Your task to perform on an android device: toggle javascript in the chrome app Image 0: 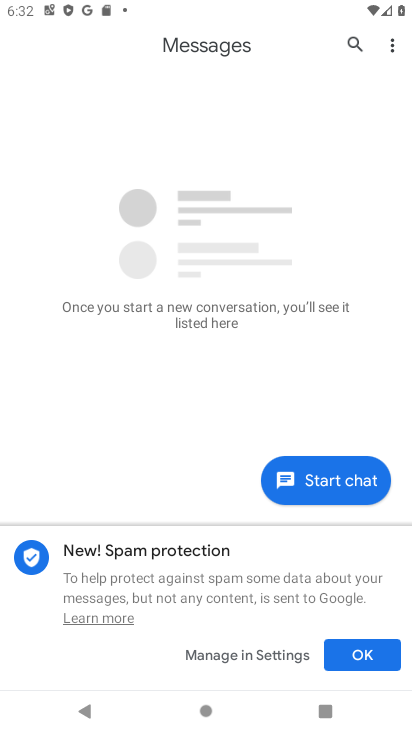
Step 0: press home button
Your task to perform on an android device: toggle javascript in the chrome app Image 1: 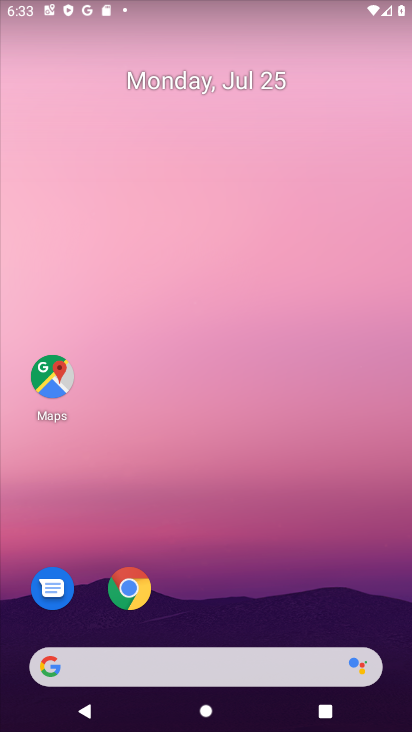
Step 1: click (132, 585)
Your task to perform on an android device: toggle javascript in the chrome app Image 2: 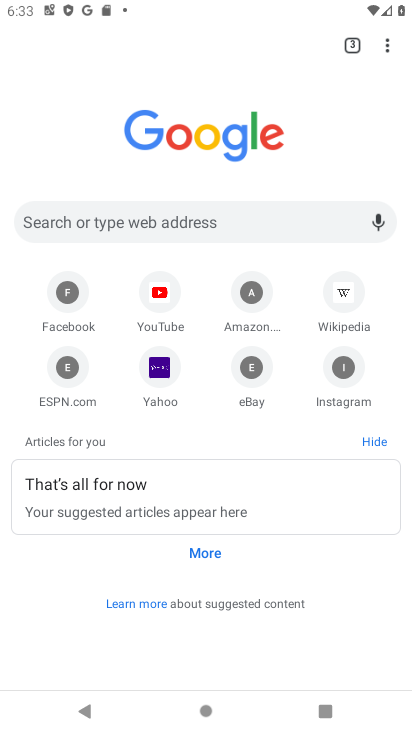
Step 2: click (392, 51)
Your task to perform on an android device: toggle javascript in the chrome app Image 3: 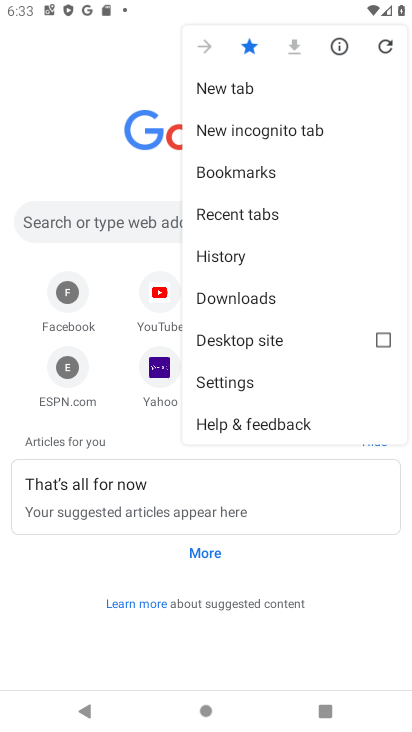
Step 3: click (237, 388)
Your task to perform on an android device: toggle javascript in the chrome app Image 4: 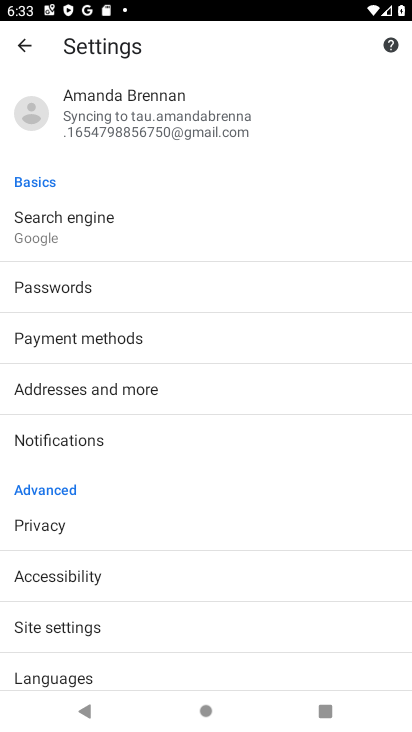
Step 4: task complete